Your task to perform on an android device: Clear all items from cart on bestbuy. Search for "razer deathadder" on bestbuy, select the first entry, and add it to the cart. Image 0: 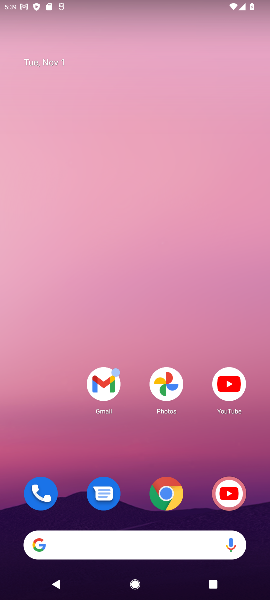
Step 0: click (171, 495)
Your task to perform on an android device: Clear all items from cart on bestbuy. Search for "razer deathadder" on bestbuy, select the first entry, and add it to the cart. Image 1: 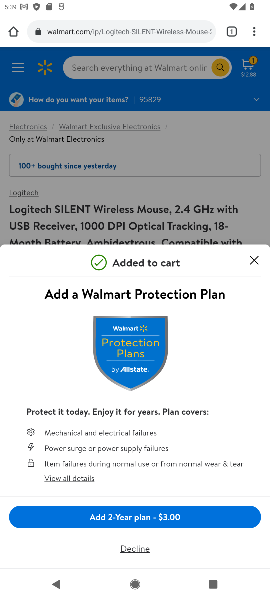
Step 1: click (164, 32)
Your task to perform on an android device: Clear all items from cart on bestbuy. Search for "razer deathadder" on bestbuy, select the first entry, and add it to the cart. Image 2: 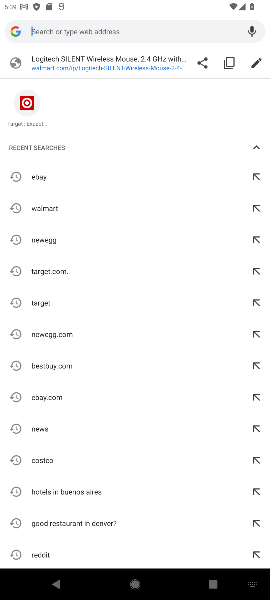
Step 2: type "bestbuy"
Your task to perform on an android device: Clear all items from cart on bestbuy. Search for "razer deathadder" on bestbuy, select the first entry, and add it to the cart. Image 3: 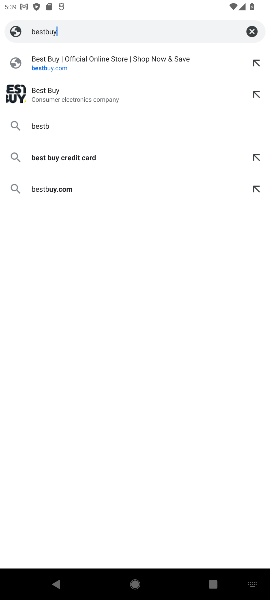
Step 3: press enter
Your task to perform on an android device: Clear all items from cart on bestbuy. Search for "razer deathadder" on bestbuy, select the first entry, and add it to the cart. Image 4: 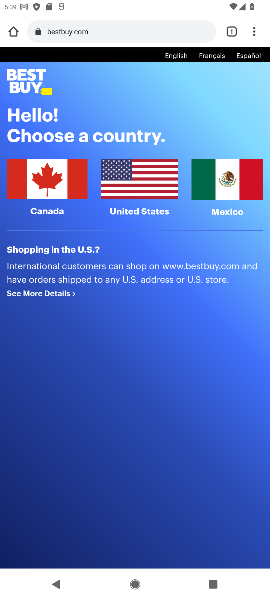
Step 4: click (136, 183)
Your task to perform on an android device: Clear all items from cart on bestbuy. Search for "razer deathadder" on bestbuy, select the first entry, and add it to the cart. Image 5: 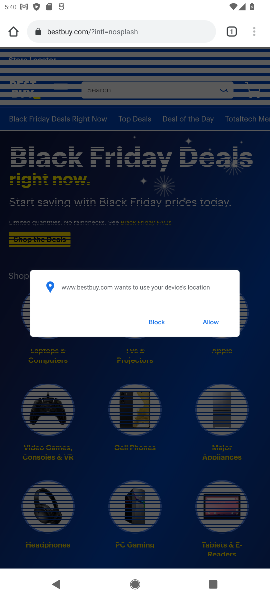
Step 5: click (158, 320)
Your task to perform on an android device: Clear all items from cart on bestbuy. Search for "razer deathadder" on bestbuy, select the first entry, and add it to the cart. Image 6: 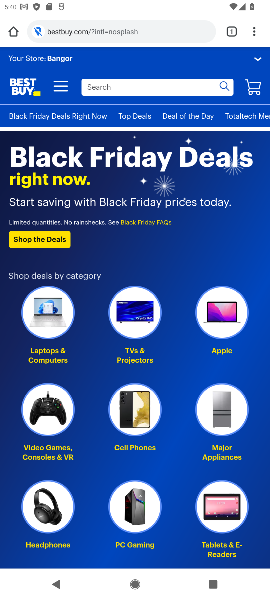
Step 6: click (252, 90)
Your task to perform on an android device: Clear all items from cart on bestbuy. Search for "razer deathadder" on bestbuy, select the first entry, and add it to the cart. Image 7: 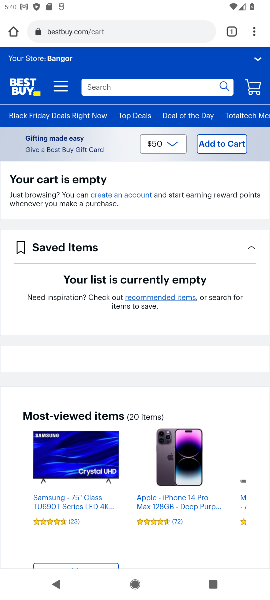
Step 7: click (149, 85)
Your task to perform on an android device: Clear all items from cart on bestbuy. Search for "razer deathadder" on bestbuy, select the first entry, and add it to the cart. Image 8: 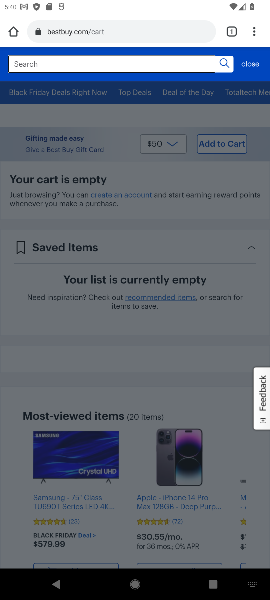
Step 8: type "razer deathadder"
Your task to perform on an android device: Clear all items from cart on bestbuy. Search for "razer deathadder" on bestbuy, select the first entry, and add it to the cart. Image 9: 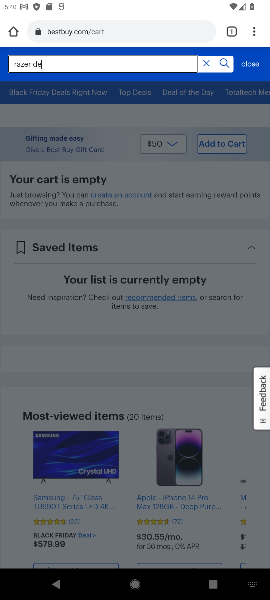
Step 9: press enter
Your task to perform on an android device: Clear all items from cart on bestbuy. Search for "razer deathadder" on bestbuy, select the first entry, and add it to the cart. Image 10: 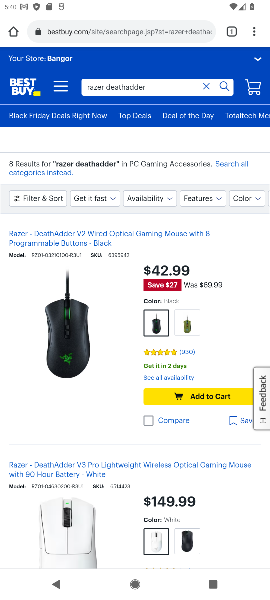
Step 10: click (208, 86)
Your task to perform on an android device: Clear all items from cart on bestbuy. Search for "razer deathadder" on bestbuy, select the first entry, and add it to the cart. Image 11: 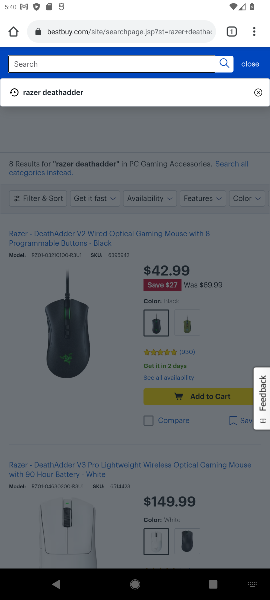
Step 11: type "razer deathadder"
Your task to perform on an android device: Clear all items from cart on bestbuy. Search for "razer deathadder" on bestbuy, select the first entry, and add it to the cart. Image 12: 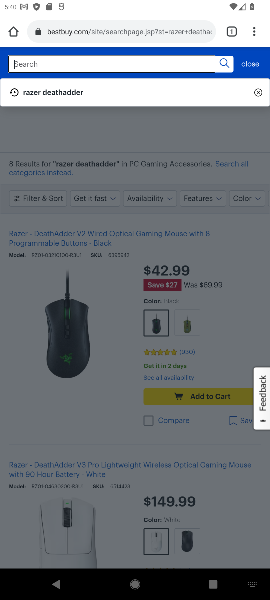
Step 12: press enter
Your task to perform on an android device: Clear all items from cart on bestbuy. Search for "razer deathadder" on bestbuy, select the first entry, and add it to the cart. Image 13: 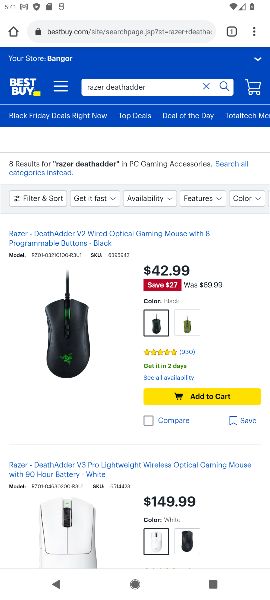
Step 13: click (44, 304)
Your task to perform on an android device: Clear all items from cart on bestbuy. Search for "razer deathadder" on bestbuy, select the first entry, and add it to the cart. Image 14: 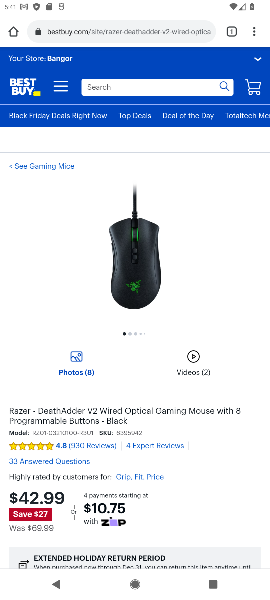
Step 14: drag from (223, 450) to (229, 279)
Your task to perform on an android device: Clear all items from cart on bestbuy. Search for "razer deathadder" on bestbuy, select the first entry, and add it to the cart. Image 15: 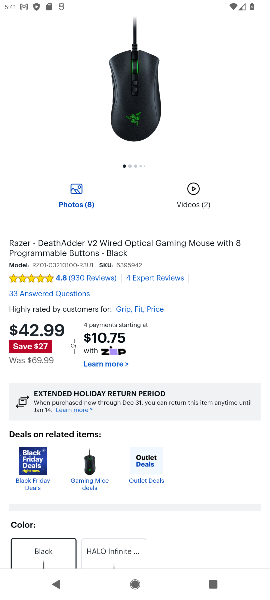
Step 15: drag from (169, 480) to (225, 198)
Your task to perform on an android device: Clear all items from cart on bestbuy. Search for "razer deathadder" on bestbuy, select the first entry, and add it to the cart. Image 16: 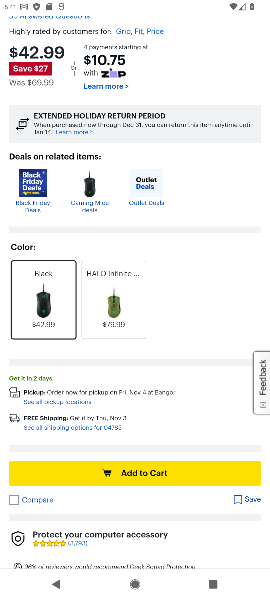
Step 16: click (189, 466)
Your task to perform on an android device: Clear all items from cart on bestbuy. Search for "razer deathadder" on bestbuy, select the first entry, and add it to the cart. Image 17: 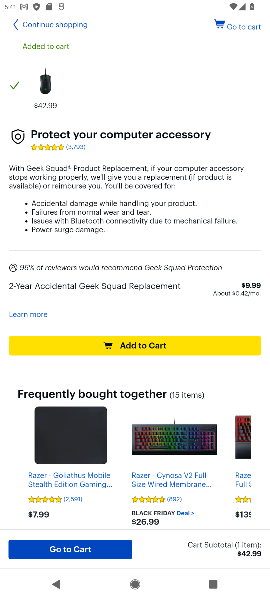
Step 17: task complete